Your task to perform on an android device: Go to Yahoo.com Image 0: 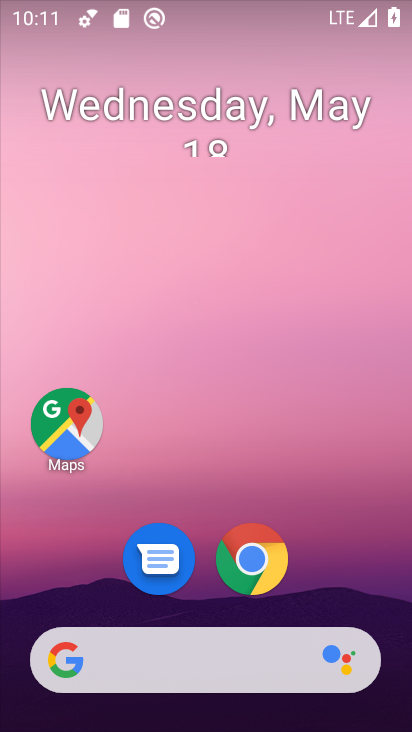
Step 0: click (262, 572)
Your task to perform on an android device: Go to Yahoo.com Image 1: 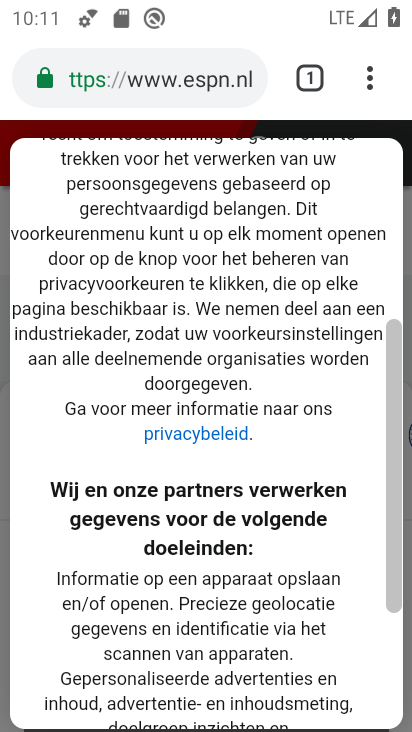
Step 1: click (169, 72)
Your task to perform on an android device: Go to Yahoo.com Image 2: 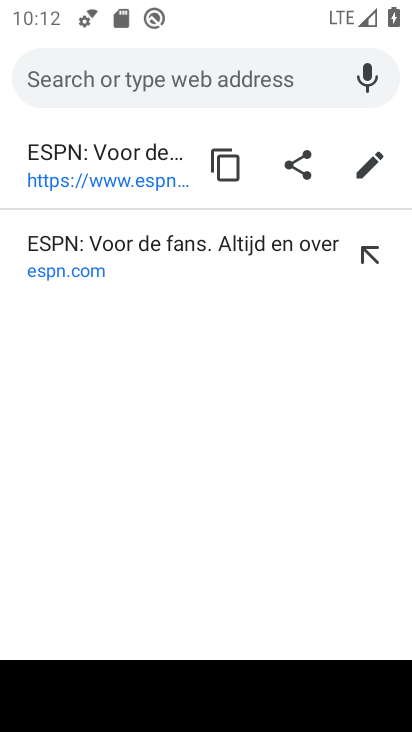
Step 2: type "yahoo.com"
Your task to perform on an android device: Go to Yahoo.com Image 3: 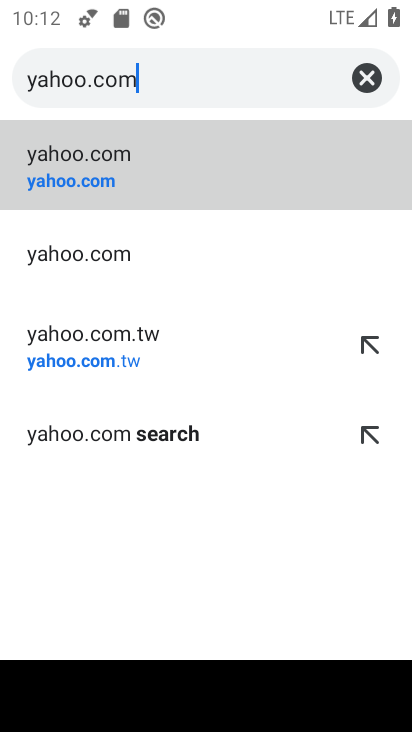
Step 3: click (102, 164)
Your task to perform on an android device: Go to Yahoo.com Image 4: 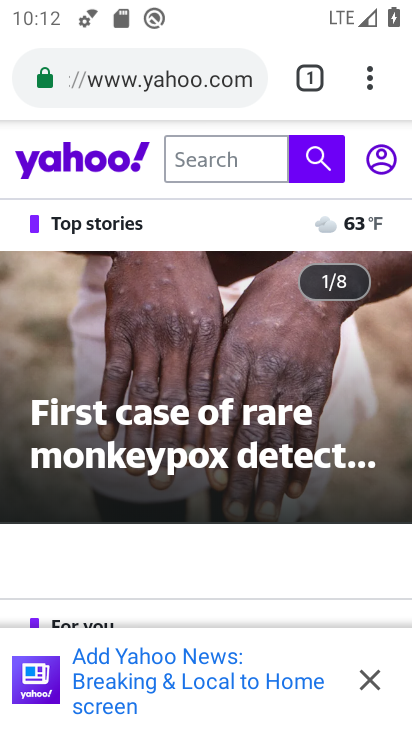
Step 4: task complete